Your task to perform on an android device: Turn on the flashlight Image 0: 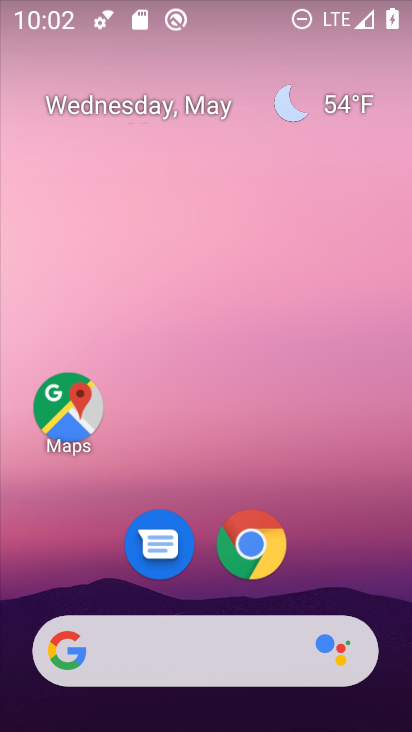
Step 0: drag from (196, 573) to (405, 197)
Your task to perform on an android device: Turn on the flashlight Image 1: 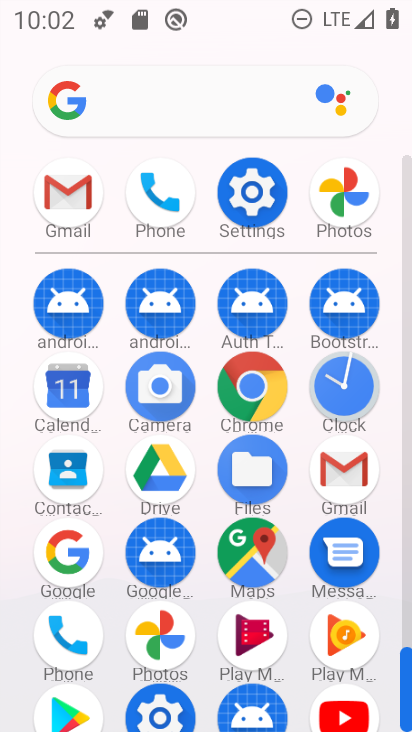
Step 1: click (234, 253)
Your task to perform on an android device: Turn on the flashlight Image 2: 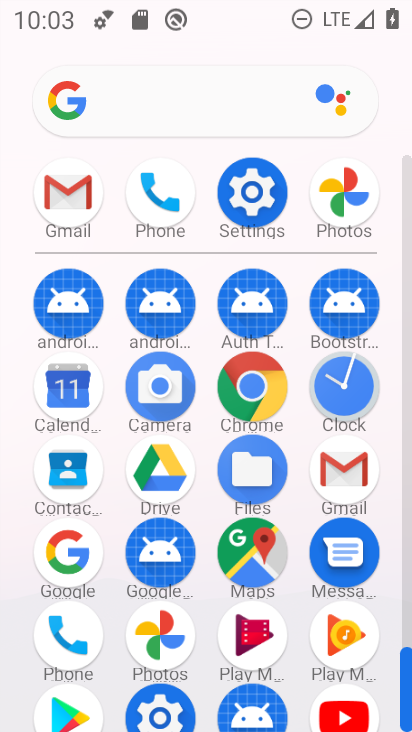
Step 2: click (260, 215)
Your task to perform on an android device: Turn on the flashlight Image 3: 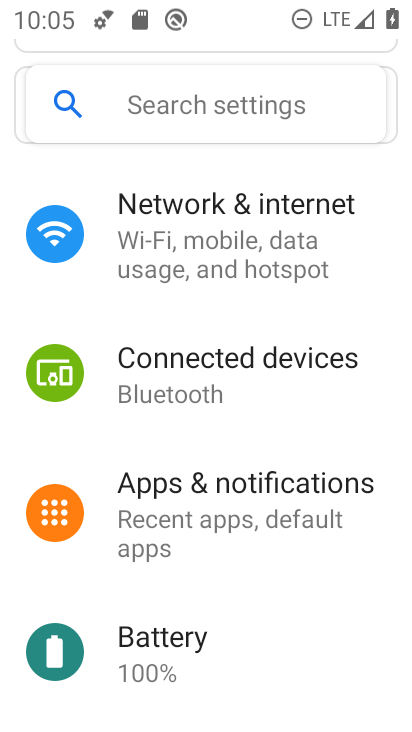
Step 3: task complete